Your task to perform on an android device: Show me popular games on the Play Store Image 0: 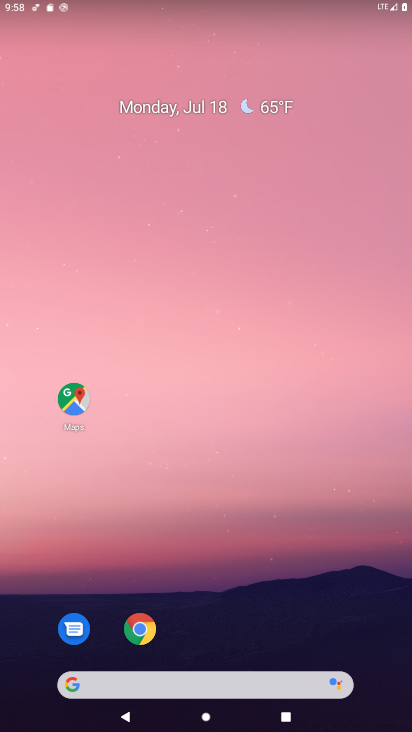
Step 0: drag from (237, 577) to (211, 201)
Your task to perform on an android device: Show me popular games on the Play Store Image 1: 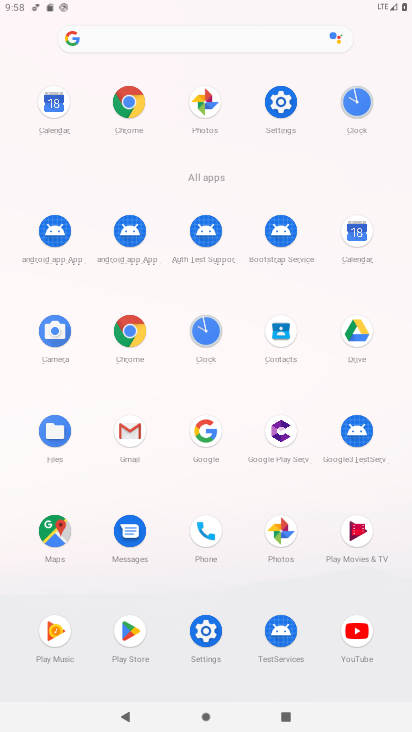
Step 1: click (129, 622)
Your task to perform on an android device: Show me popular games on the Play Store Image 2: 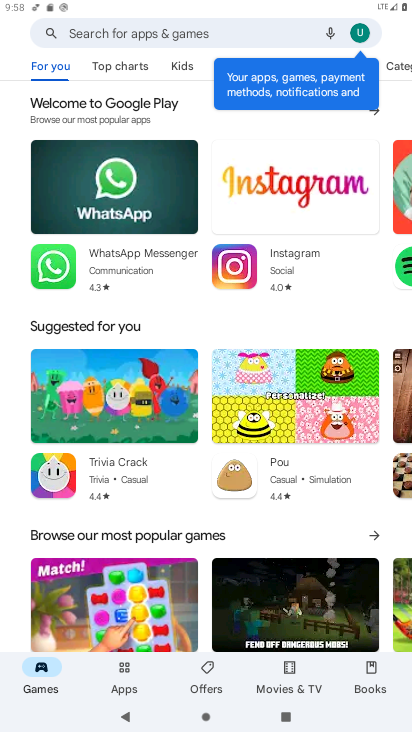
Step 2: task complete